Your task to perform on an android device: Turn off the flashlight Image 0: 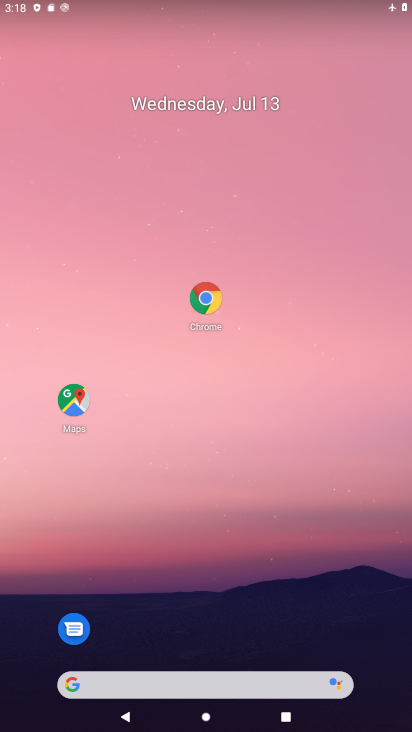
Step 0: drag from (185, 633) to (214, 281)
Your task to perform on an android device: Turn off the flashlight Image 1: 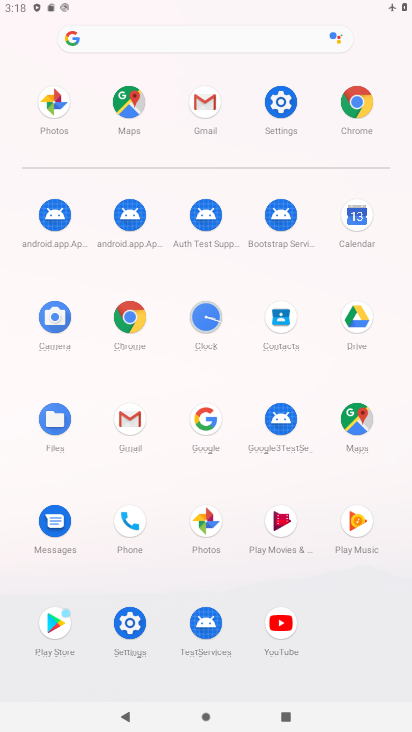
Step 1: click (265, 107)
Your task to perform on an android device: Turn off the flashlight Image 2: 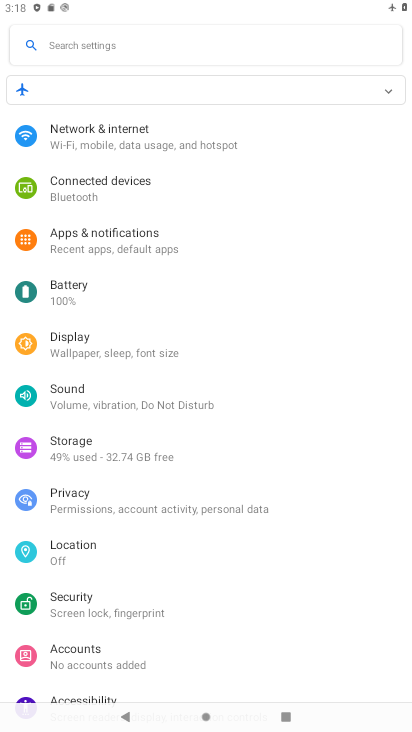
Step 2: task complete